Your task to perform on an android device: see creations saved in the google photos Image 0: 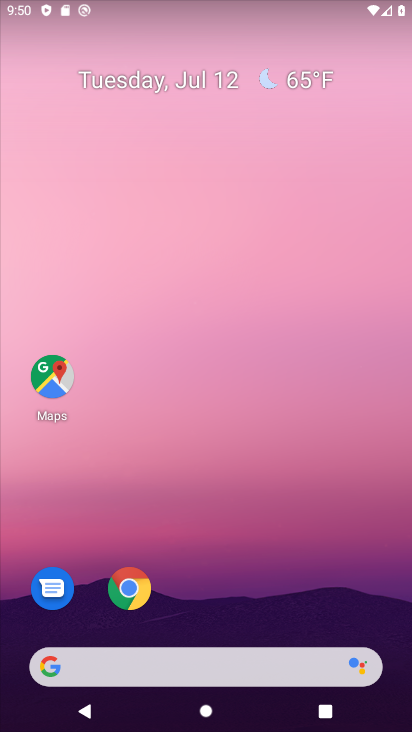
Step 0: drag from (35, 696) to (226, 168)
Your task to perform on an android device: see creations saved in the google photos Image 1: 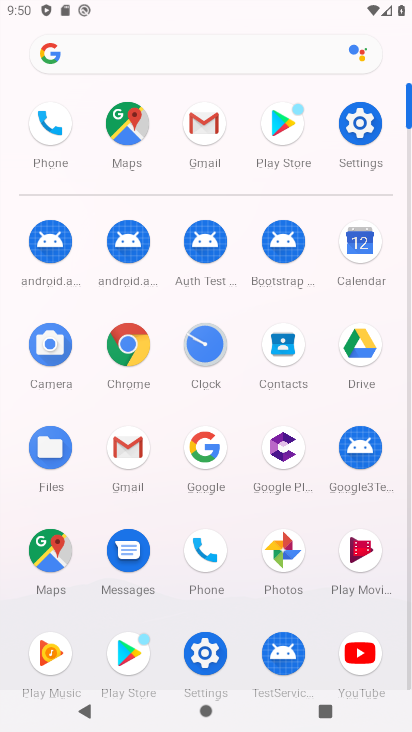
Step 1: click (281, 564)
Your task to perform on an android device: see creations saved in the google photos Image 2: 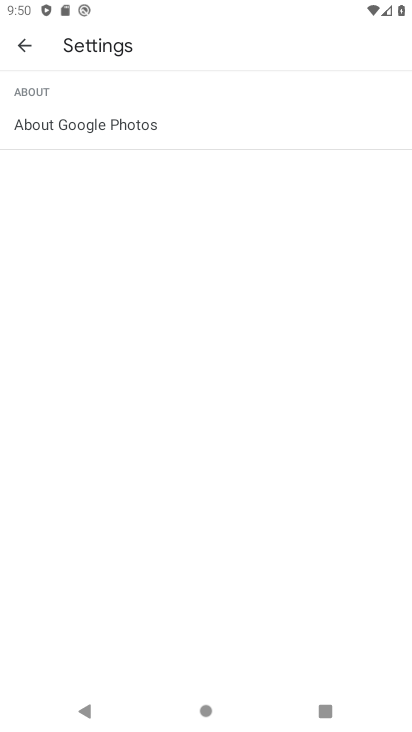
Step 2: click (25, 42)
Your task to perform on an android device: see creations saved in the google photos Image 3: 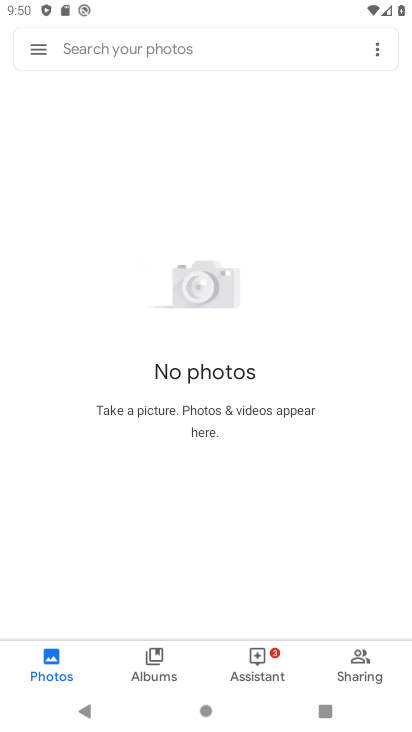
Step 3: click (27, 46)
Your task to perform on an android device: see creations saved in the google photos Image 4: 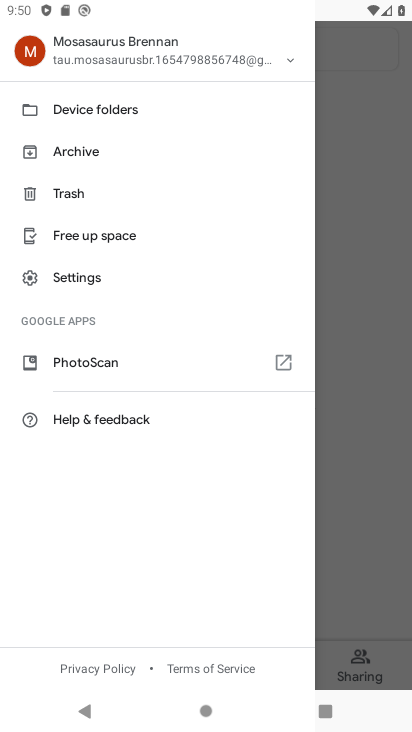
Step 4: click (364, 258)
Your task to perform on an android device: see creations saved in the google photos Image 5: 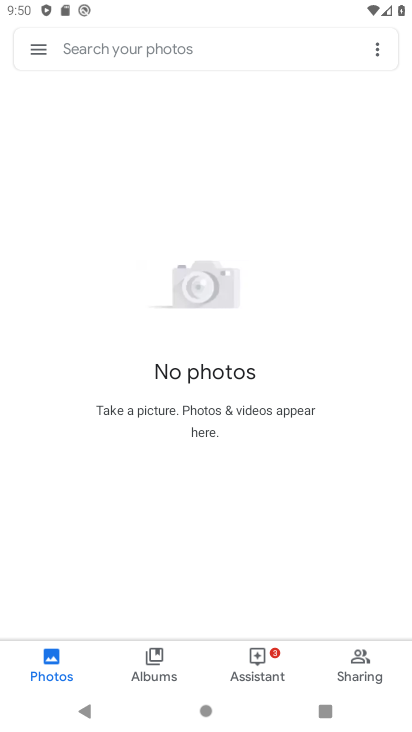
Step 5: click (51, 48)
Your task to perform on an android device: see creations saved in the google photos Image 6: 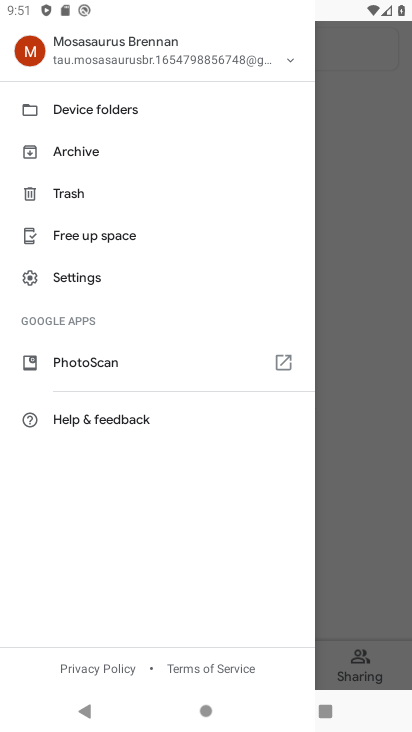
Step 6: click (67, 123)
Your task to perform on an android device: see creations saved in the google photos Image 7: 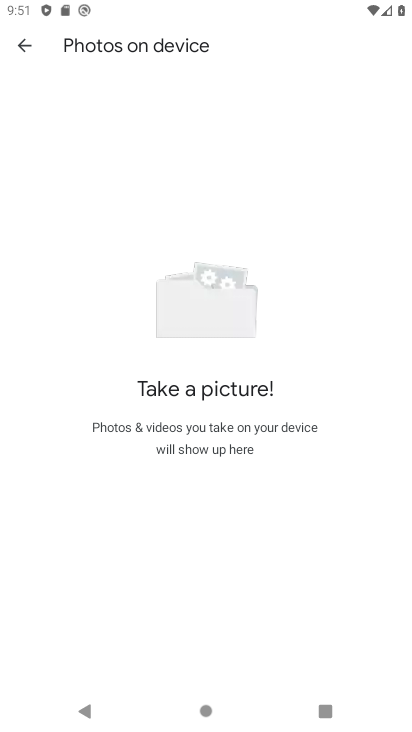
Step 7: click (26, 45)
Your task to perform on an android device: see creations saved in the google photos Image 8: 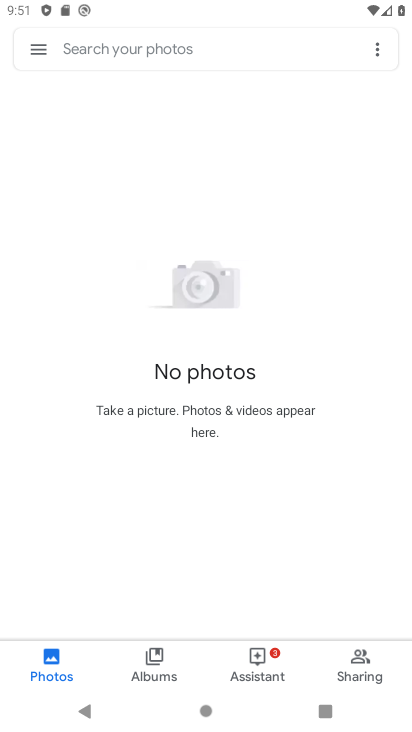
Step 8: task complete